Your task to perform on an android device: Show me popular videos on Youtube Image 0: 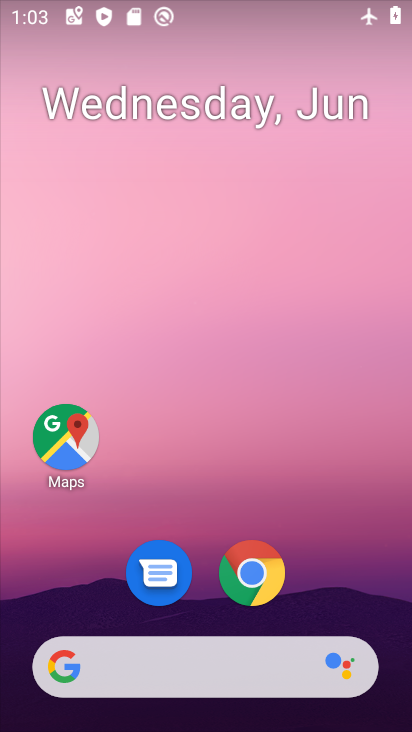
Step 0: drag from (347, 495) to (347, 56)
Your task to perform on an android device: Show me popular videos on Youtube Image 1: 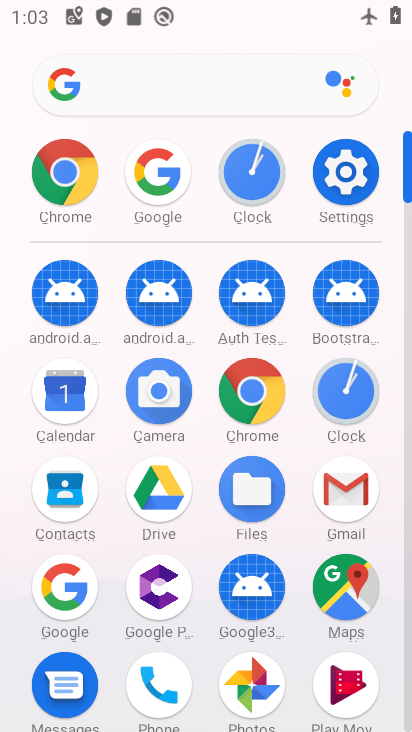
Step 1: drag from (228, 618) to (213, 213)
Your task to perform on an android device: Show me popular videos on Youtube Image 2: 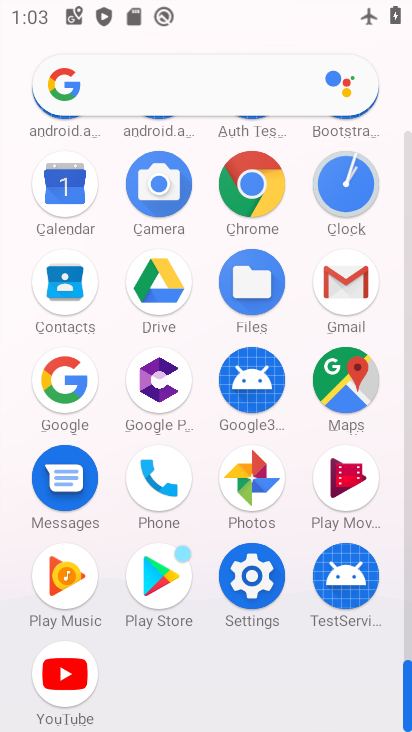
Step 2: click (68, 702)
Your task to perform on an android device: Show me popular videos on Youtube Image 3: 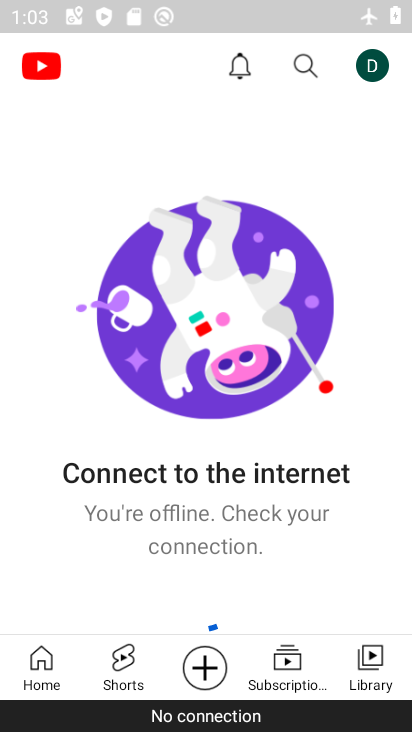
Step 3: task complete